Your task to perform on an android device: Open wifi settings Image 0: 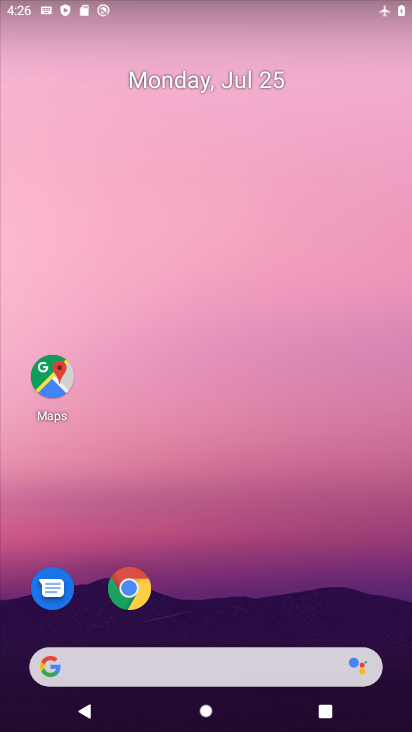
Step 0: click (226, 173)
Your task to perform on an android device: Open wifi settings Image 1: 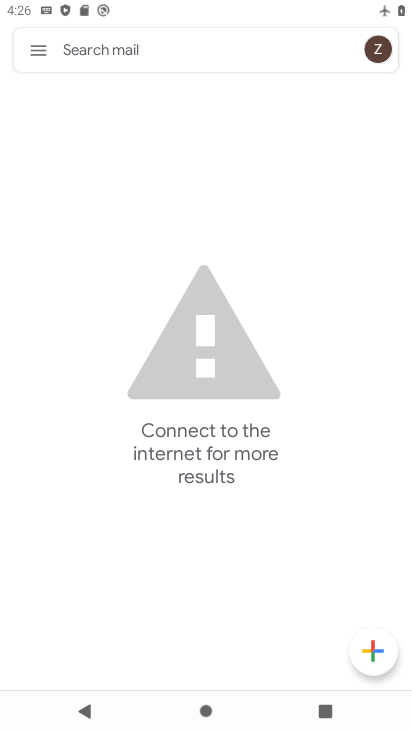
Step 1: drag from (252, 595) to (189, 234)
Your task to perform on an android device: Open wifi settings Image 2: 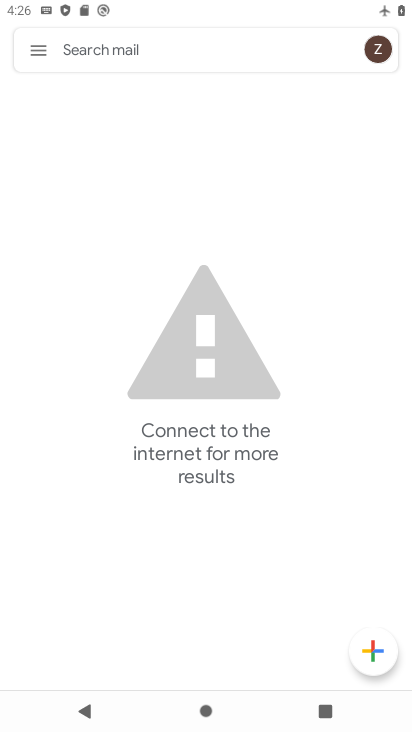
Step 2: press back button
Your task to perform on an android device: Open wifi settings Image 3: 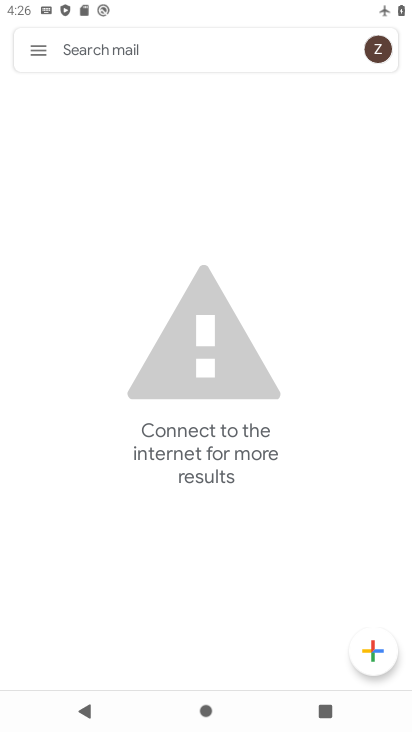
Step 3: press back button
Your task to perform on an android device: Open wifi settings Image 4: 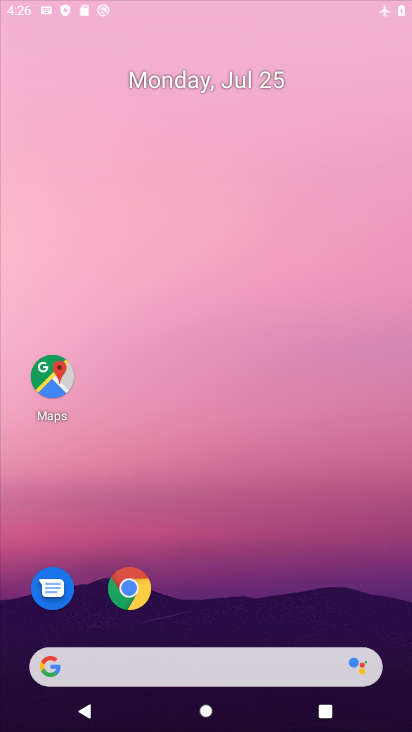
Step 4: press back button
Your task to perform on an android device: Open wifi settings Image 5: 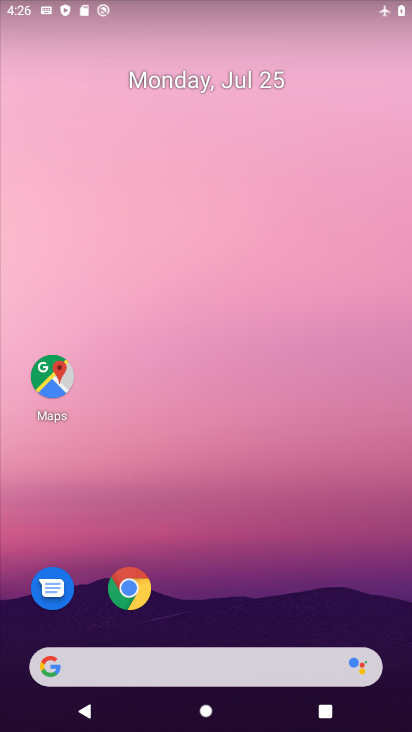
Step 5: drag from (164, 552) to (156, 40)
Your task to perform on an android device: Open wifi settings Image 6: 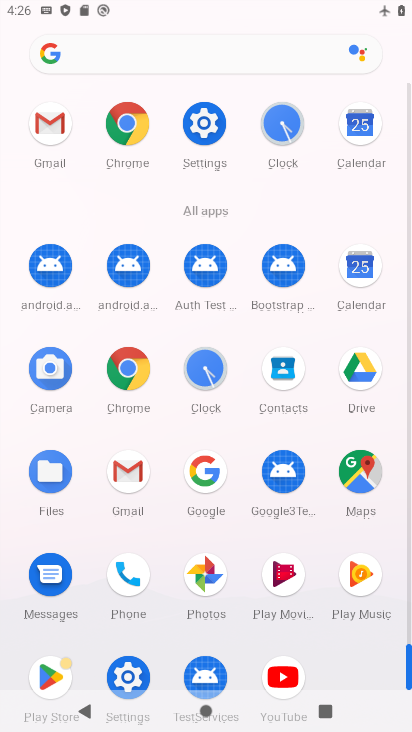
Step 6: click (195, 125)
Your task to perform on an android device: Open wifi settings Image 7: 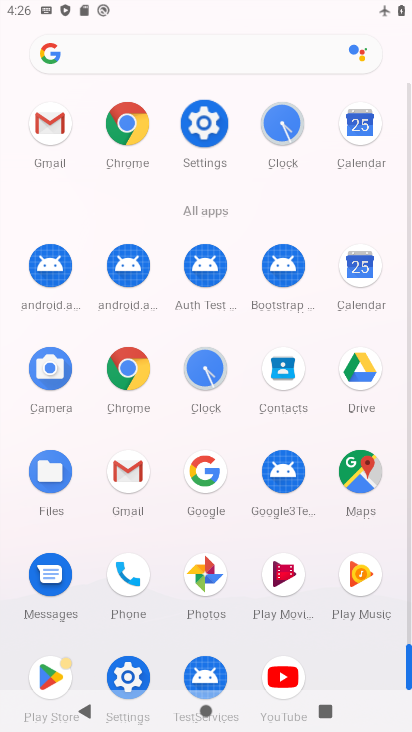
Step 7: click (195, 124)
Your task to perform on an android device: Open wifi settings Image 8: 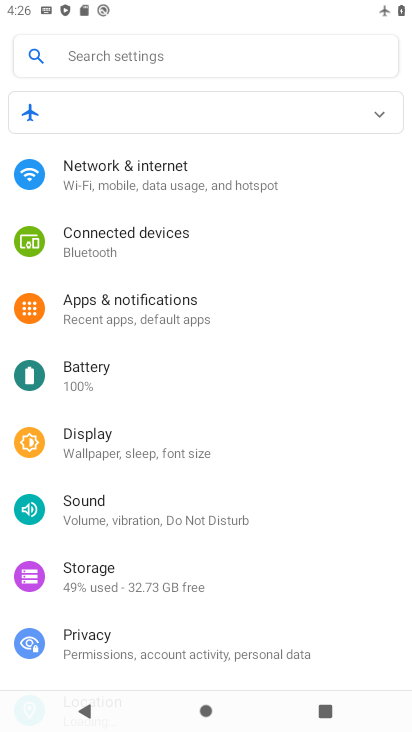
Step 8: click (102, 179)
Your task to perform on an android device: Open wifi settings Image 9: 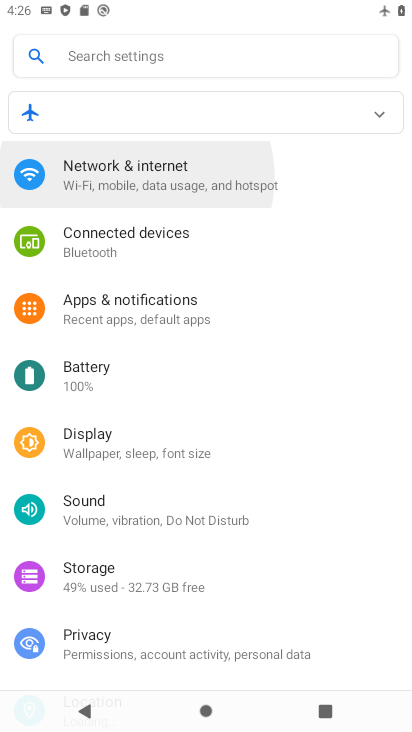
Step 9: click (104, 176)
Your task to perform on an android device: Open wifi settings Image 10: 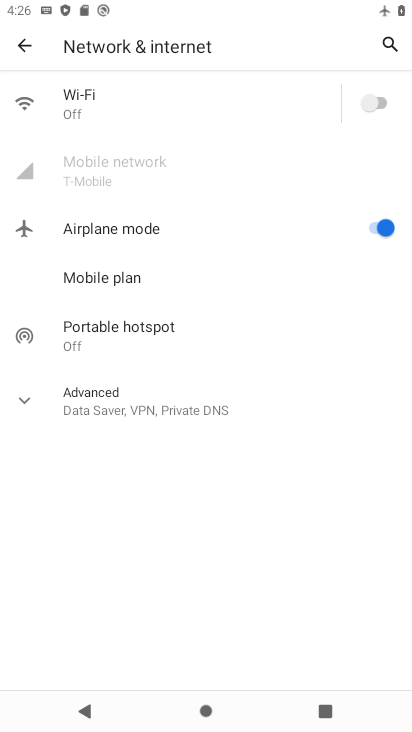
Step 10: click (389, 220)
Your task to perform on an android device: Open wifi settings Image 11: 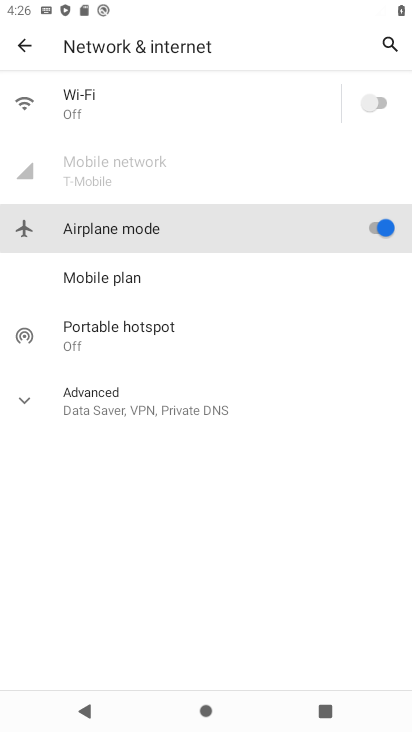
Step 11: click (370, 98)
Your task to perform on an android device: Open wifi settings Image 12: 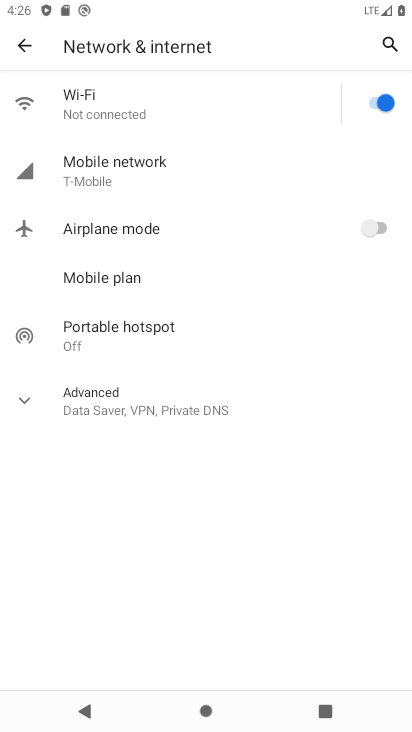
Step 12: press back button
Your task to perform on an android device: Open wifi settings Image 13: 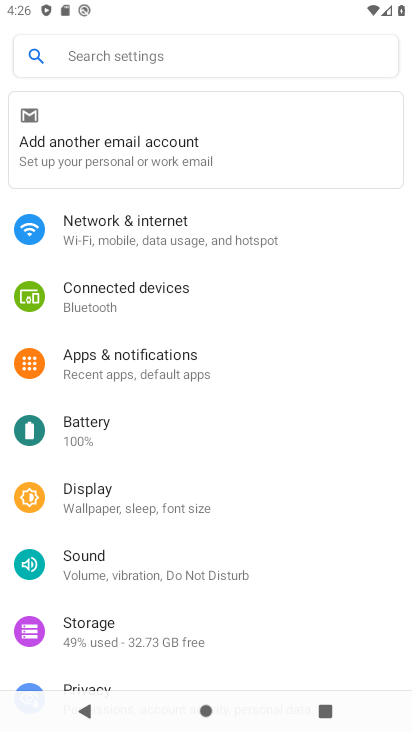
Step 13: click (122, 247)
Your task to perform on an android device: Open wifi settings Image 14: 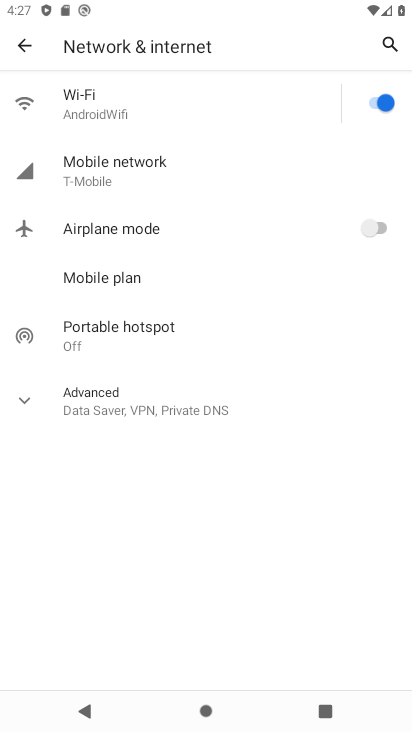
Step 14: task complete